Your task to perform on an android device: allow cookies in the chrome app Image 0: 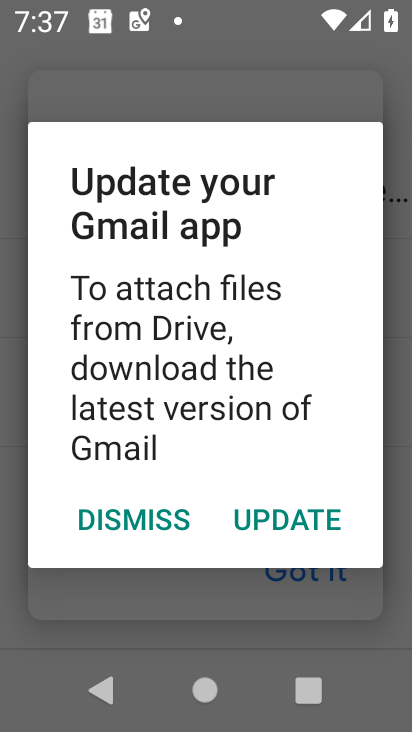
Step 0: press home button
Your task to perform on an android device: allow cookies in the chrome app Image 1: 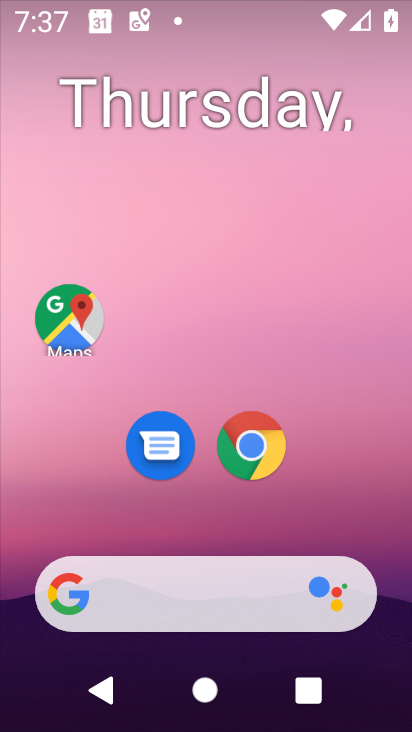
Step 1: drag from (385, 630) to (288, 46)
Your task to perform on an android device: allow cookies in the chrome app Image 2: 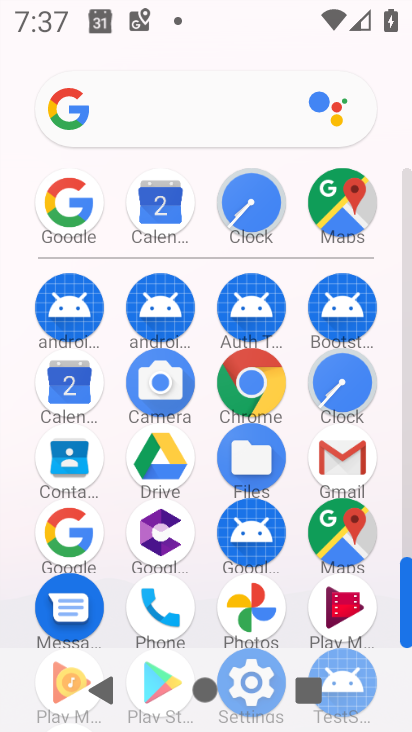
Step 2: click (246, 379)
Your task to perform on an android device: allow cookies in the chrome app Image 3: 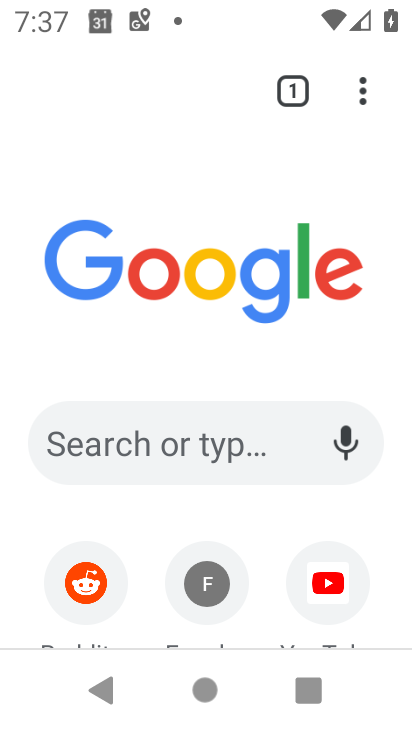
Step 3: click (367, 88)
Your task to perform on an android device: allow cookies in the chrome app Image 4: 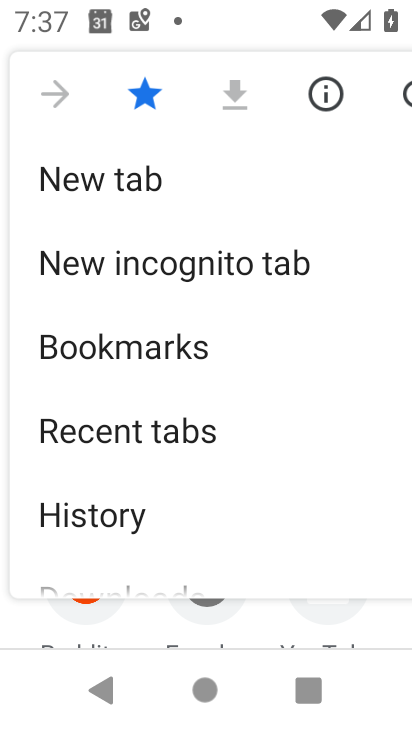
Step 4: click (155, 512)
Your task to perform on an android device: allow cookies in the chrome app Image 5: 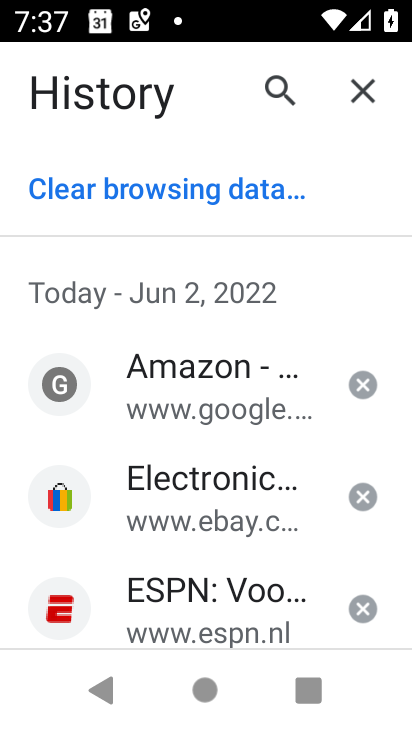
Step 5: click (191, 218)
Your task to perform on an android device: allow cookies in the chrome app Image 6: 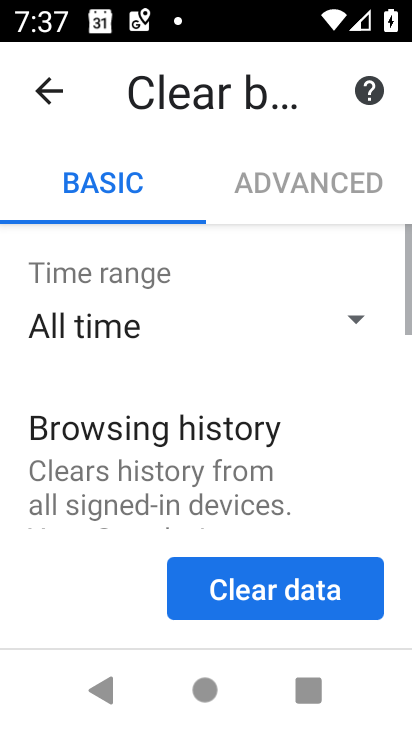
Step 6: task complete